Your task to perform on an android device: Go to Wikipedia Image 0: 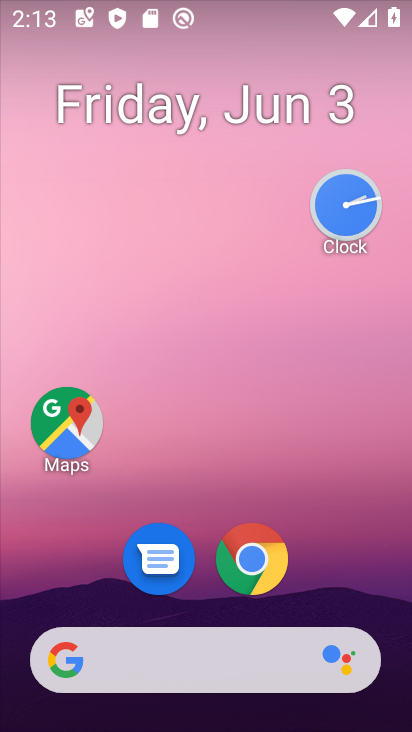
Step 0: click (262, 559)
Your task to perform on an android device: Go to Wikipedia Image 1: 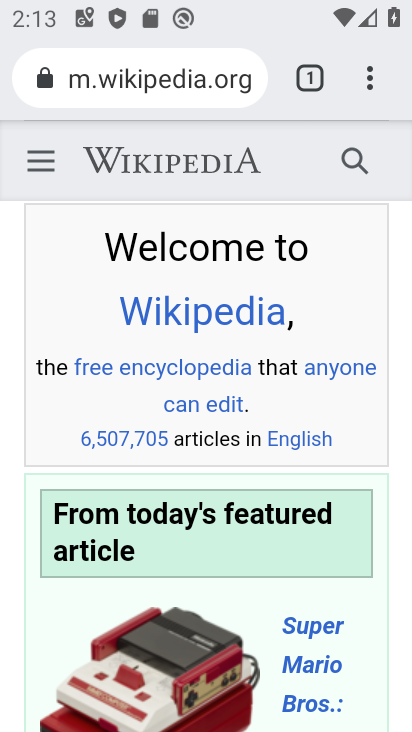
Step 1: task complete